Your task to perform on an android device: Go to sound settings Image 0: 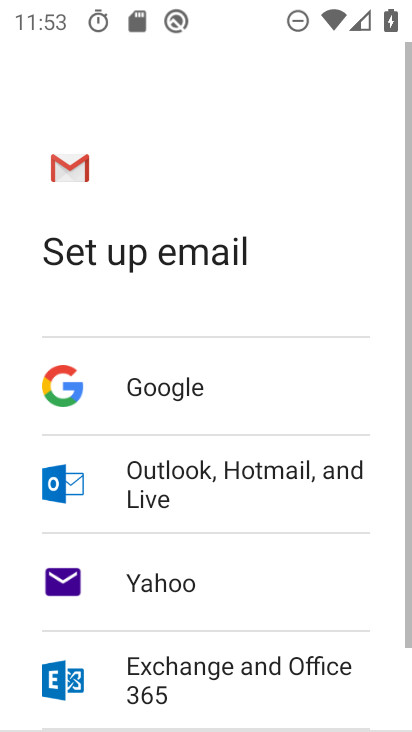
Step 0: press home button
Your task to perform on an android device: Go to sound settings Image 1: 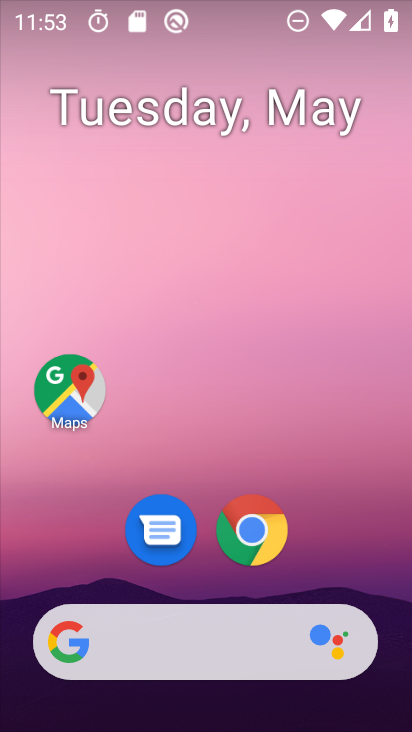
Step 1: drag from (230, 606) to (244, 111)
Your task to perform on an android device: Go to sound settings Image 2: 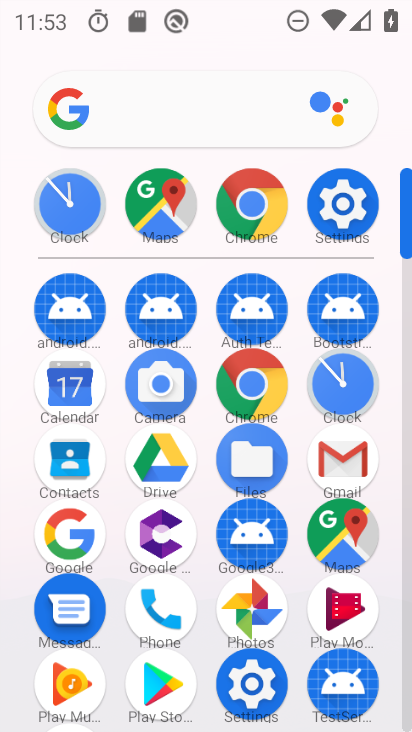
Step 2: click (323, 193)
Your task to perform on an android device: Go to sound settings Image 3: 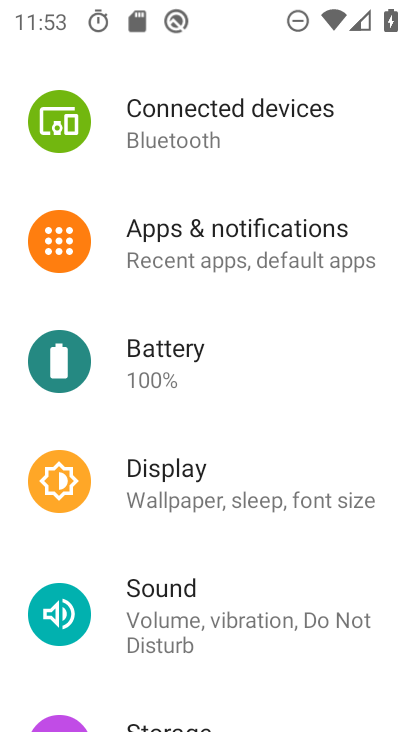
Step 3: click (247, 616)
Your task to perform on an android device: Go to sound settings Image 4: 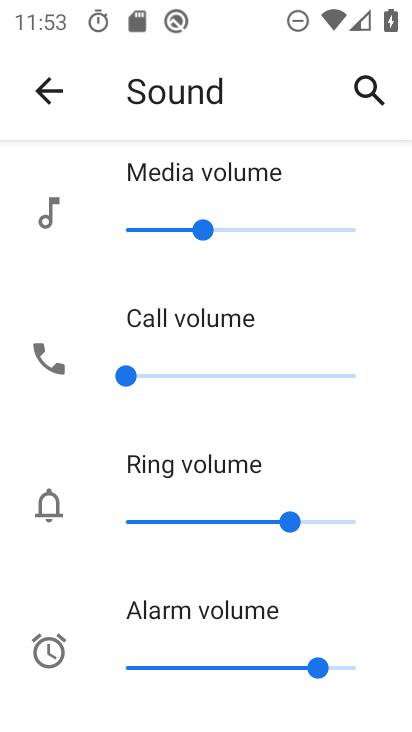
Step 4: task complete